Your task to perform on an android device: Open the phone app and click the voicemail tab. Image 0: 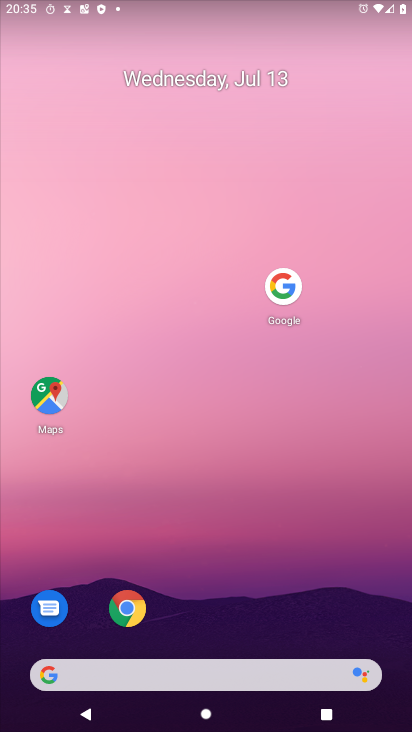
Step 0: drag from (230, 645) to (222, 121)
Your task to perform on an android device: Open the phone app and click the voicemail tab. Image 1: 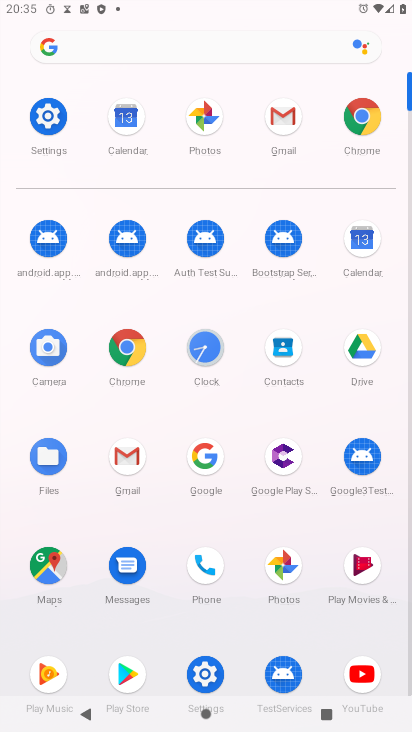
Step 1: click (206, 573)
Your task to perform on an android device: Open the phone app and click the voicemail tab. Image 2: 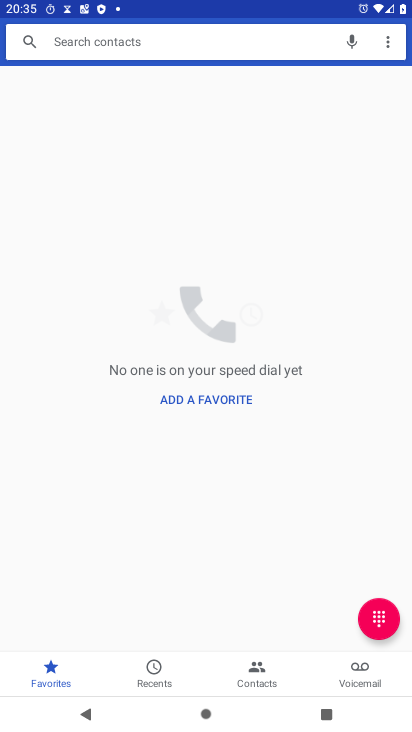
Step 2: click (342, 683)
Your task to perform on an android device: Open the phone app and click the voicemail tab. Image 3: 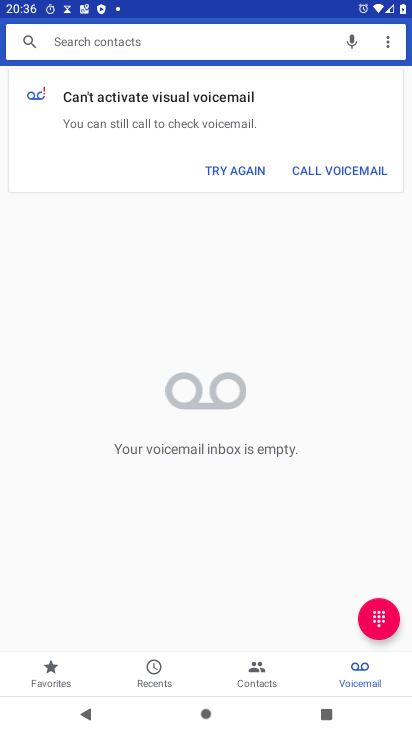
Step 3: task complete